Your task to perform on an android device: Open location settings Image 0: 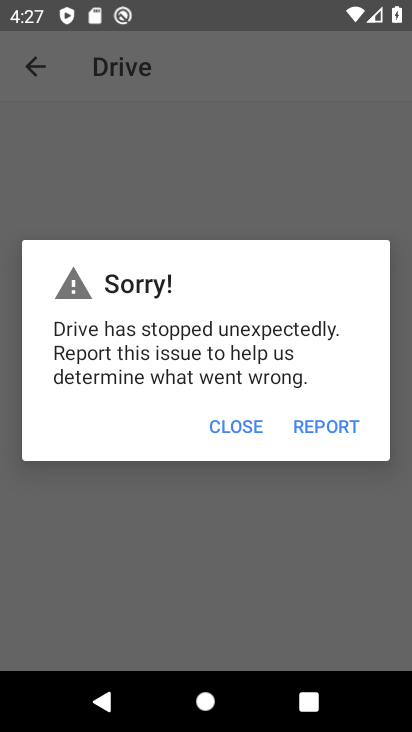
Step 0: press home button
Your task to perform on an android device: Open location settings Image 1: 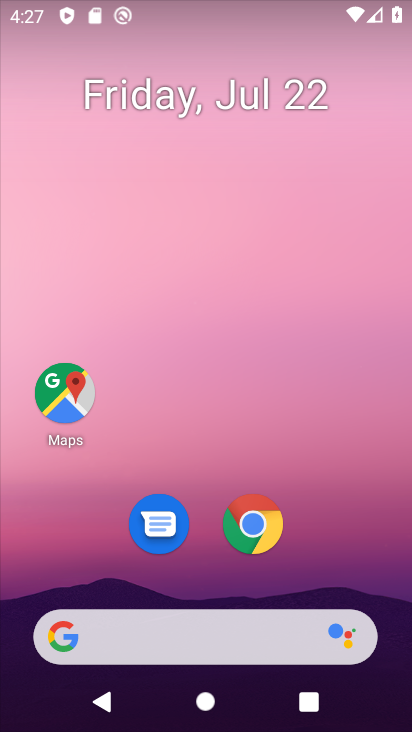
Step 1: drag from (348, 534) to (321, 62)
Your task to perform on an android device: Open location settings Image 2: 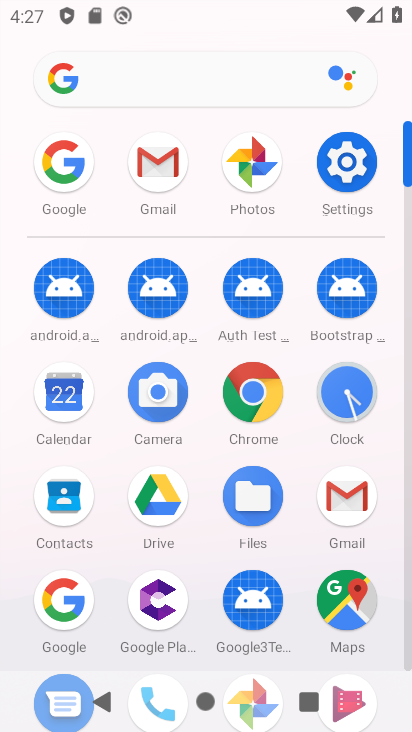
Step 2: click (353, 170)
Your task to perform on an android device: Open location settings Image 3: 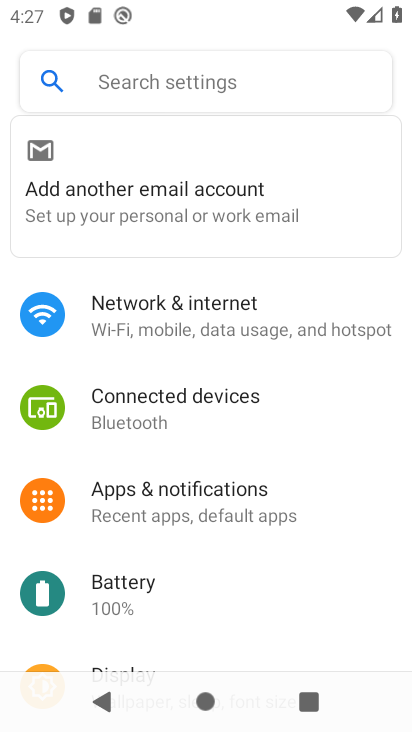
Step 3: drag from (217, 562) to (268, 111)
Your task to perform on an android device: Open location settings Image 4: 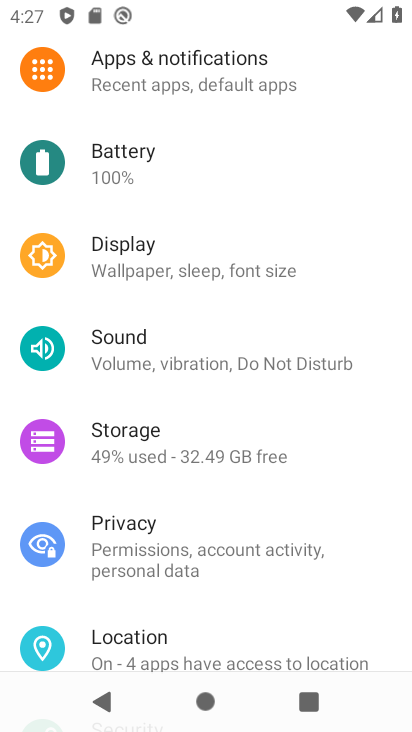
Step 4: click (229, 647)
Your task to perform on an android device: Open location settings Image 5: 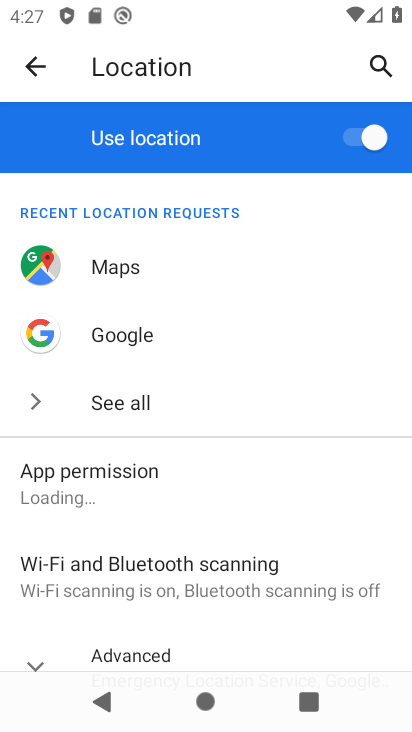
Step 5: task complete